Your task to perform on an android device: Open Google Maps and go to "Timeline" Image 0: 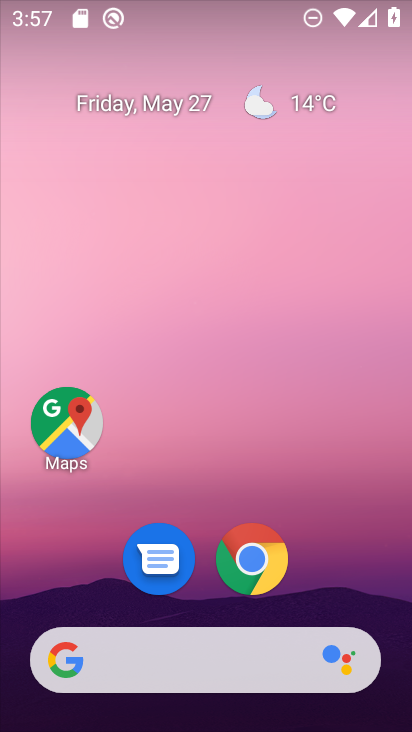
Step 0: drag from (241, 542) to (301, 27)
Your task to perform on an android device: Open Google Maps and go to "Timeline" Image 1: 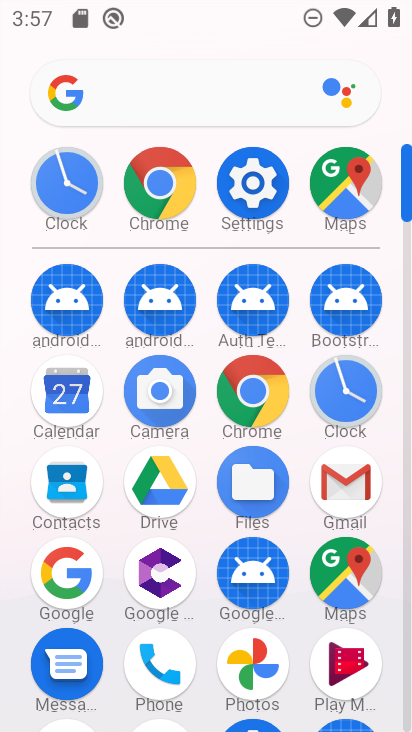
Step 1: click (351, 571)
Your task to perform on an android device: Open Google Maps and go to "Timeline" Image 2: 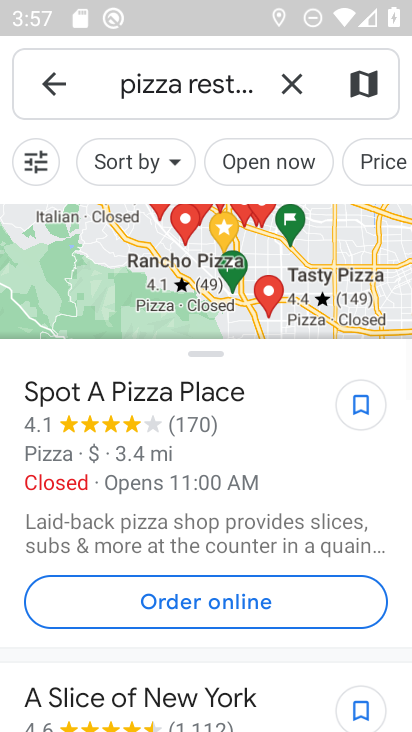
Step 2: press back button
Your task to perform on an android device: Open Google Maps and go to "Timeline" Image 3: 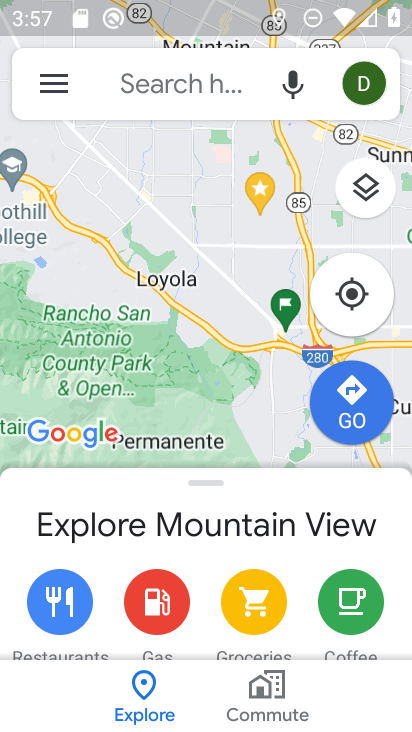
Step 3: click (39, 79)
Your task to perform on an android device: Open Google Maps and go to "Timeline" Image 4: 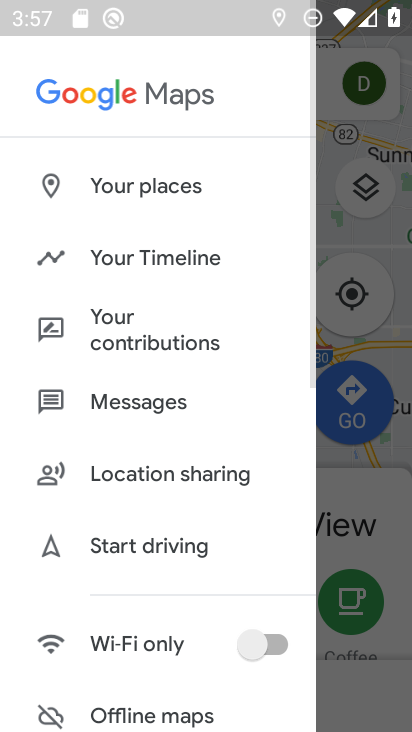
Step 4: click (127, 262)
Your task to perform on an android device: Open Google Maps and go to "Timeline" Image 5: 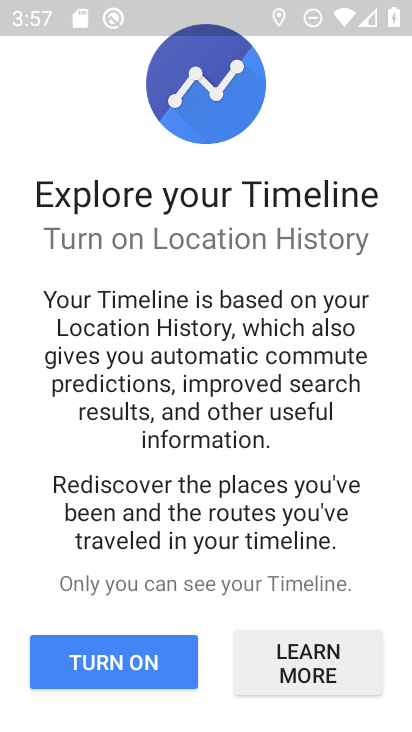
Step 5: drag from (319, 542) to (303, 32)
Your task to perform on an android device: Open Google Maps and go to "Timeline" Image 6: 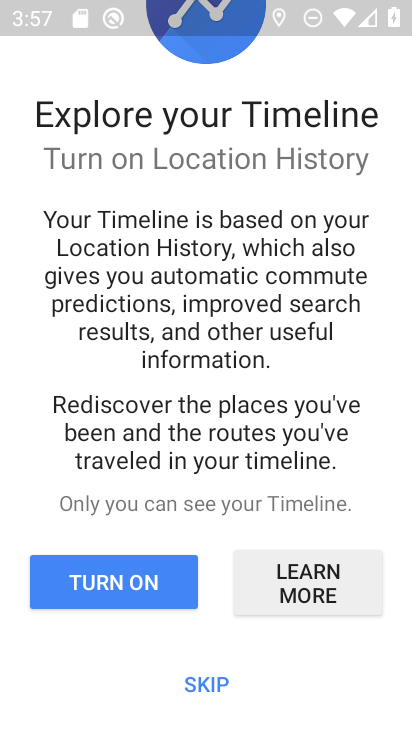
Step 6: click (210, 680)
Your task to perform on an android device: Open Google Maps and go to "Timeline" Image 7: 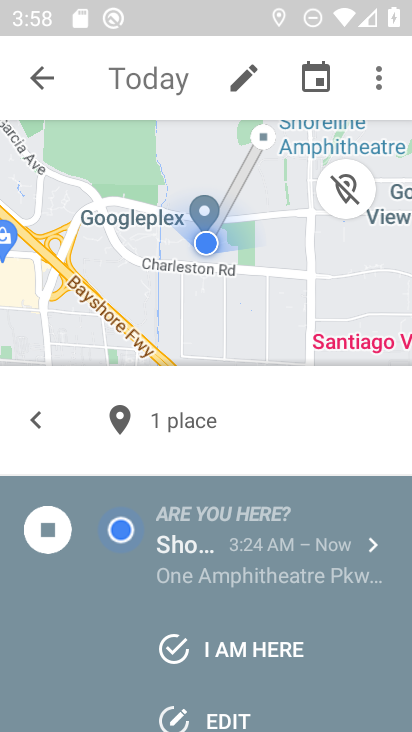
Step 7: task complete